Your task to perform on an android device: Search for Italian restaurants on Maps Image 0: 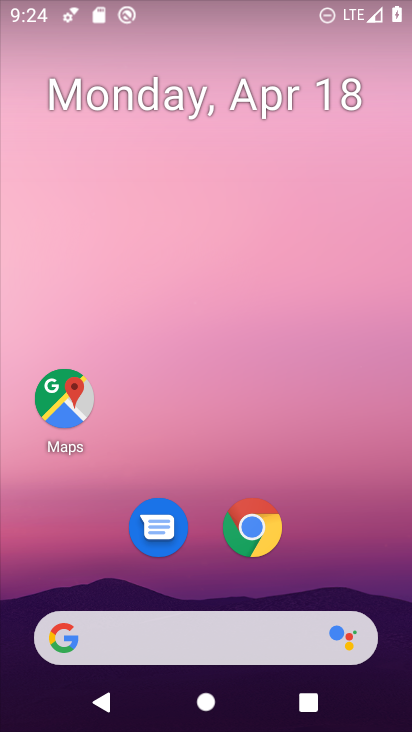
Step 0: drag from (336, 518) to (263, 6)
Your task to perform on an android device: Search for Italian restaurants on Maps Image 1: 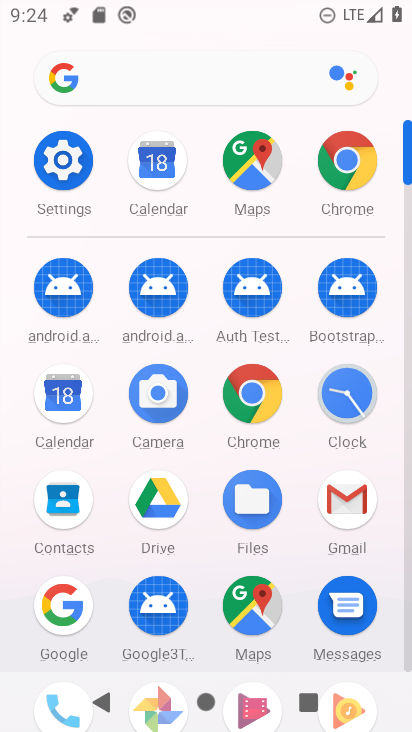
Step 1: click (256, 599)
Your task to perform on an android device: Search for Italian restaurants on Maps Image 2: 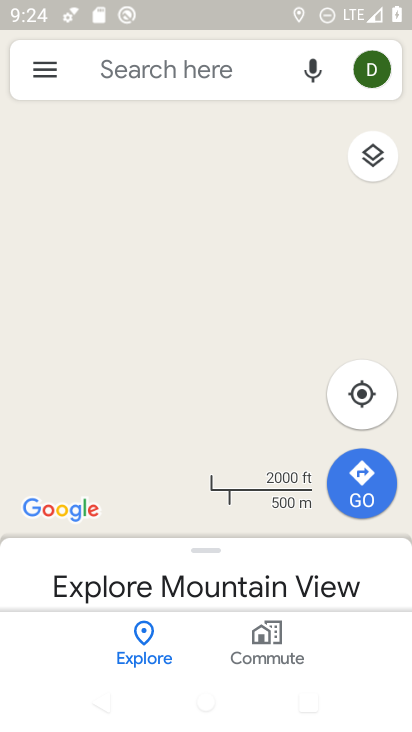
Step 2: click (242, 67)
Your task to perform on an android device: Search for Italian restaurants on Maps Image 3: 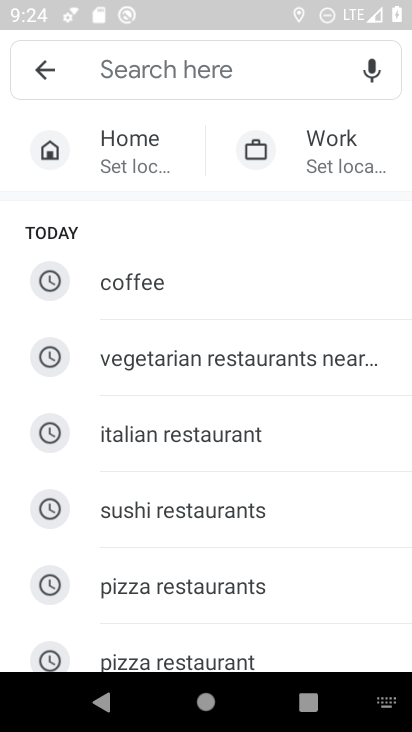
Step 3: click (278, 440)
Your task to perform on an android device: Search for Italian restaurants on Maps Image 4: 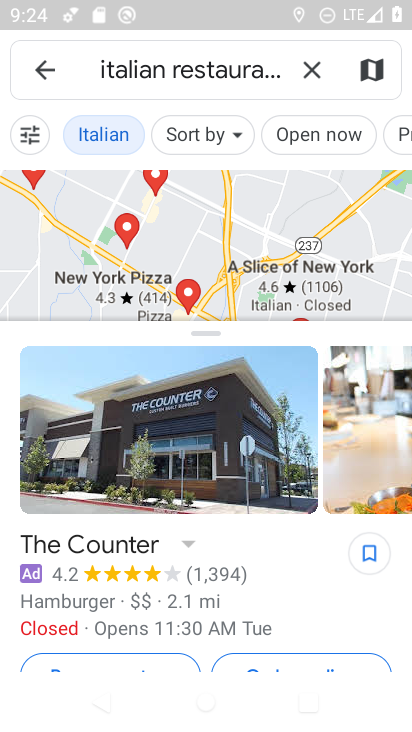
Step 4: task complete